Your task to perform on an android device: Go to calendar. Show me events next week Image 0: 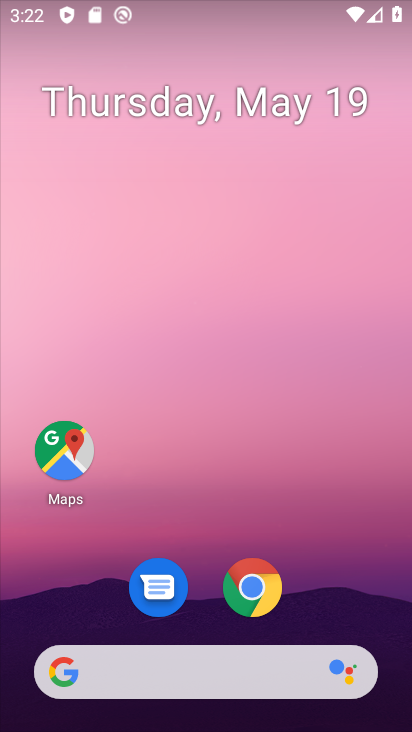
Step 0: drag from (354, 572) to (342, 183)
Your task to perform on an android device: Go to calendar. Show me events next week Image 1: 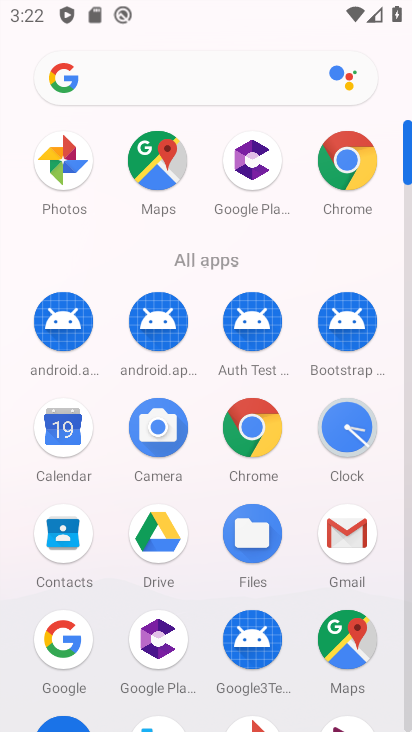
Step 1: click (61, 452)
Your task to perform on an android device: Go to calendar. Show me events next week Image 2: 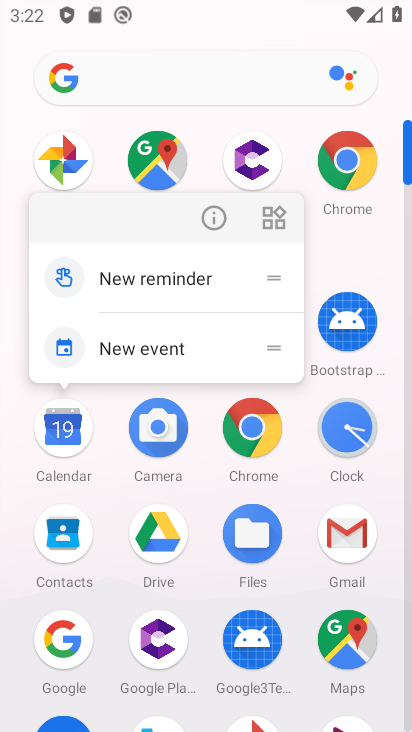
Step 2: click (61, 452)
Your task to perform on an android device: Go to calendar. Show me events next week Image 3: 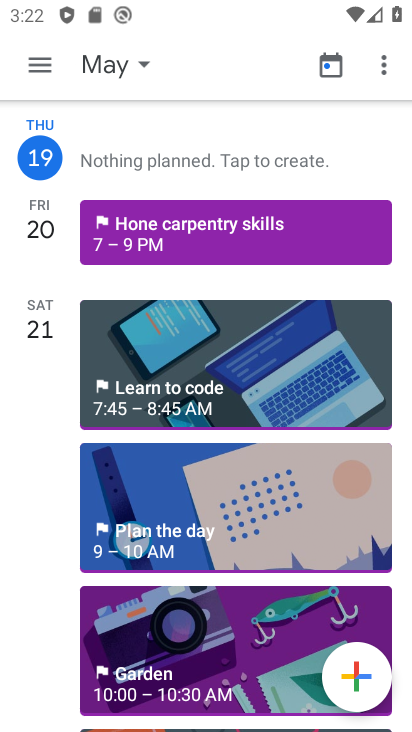
Step 3: click (146, 65)
Your task to perform on an android device: Go to calendar. Show me events next week Image 4: 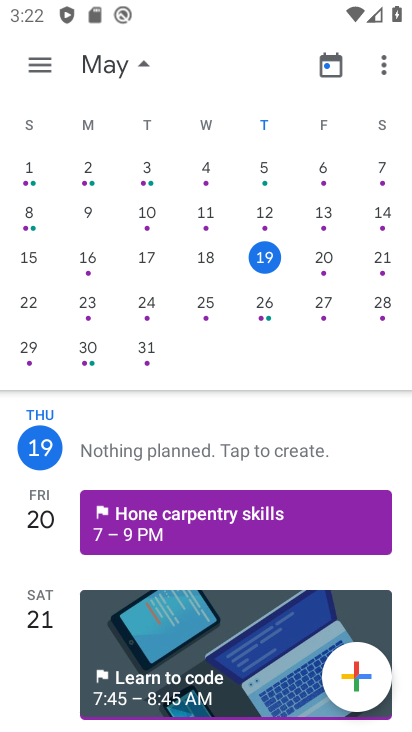
Step 4: click (80, 312)
Your task to perform on an android device: Go to calendar. Show me events next week Image 5: 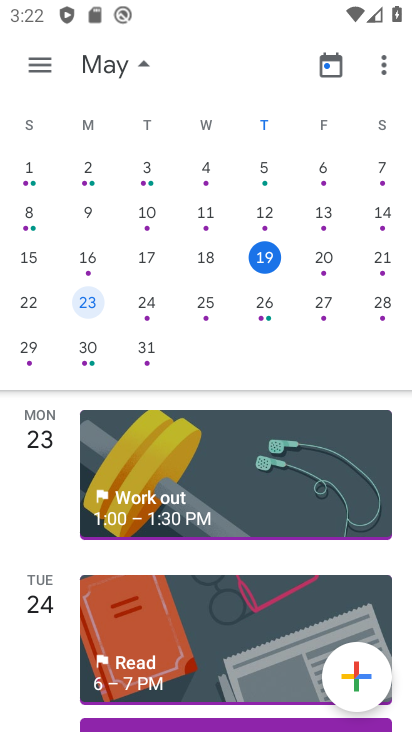
Step 5: task complete